Your task to perform on an android device: Open wifi settings Image 0: 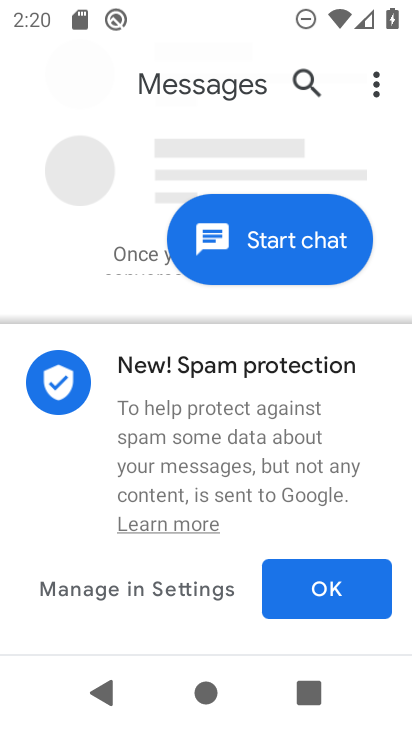
Step 0: press home button
Your task to perform on an android device: Open wifi settings Image 1: 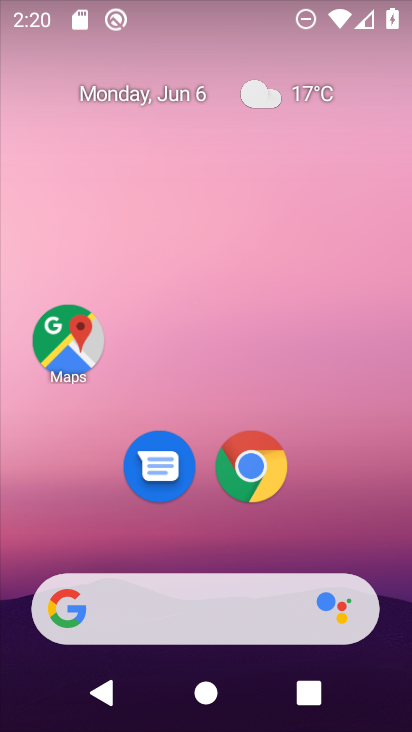
Step 1: click (255, 474)
Your task to perform on an android device: Open wifi settings Image 2: 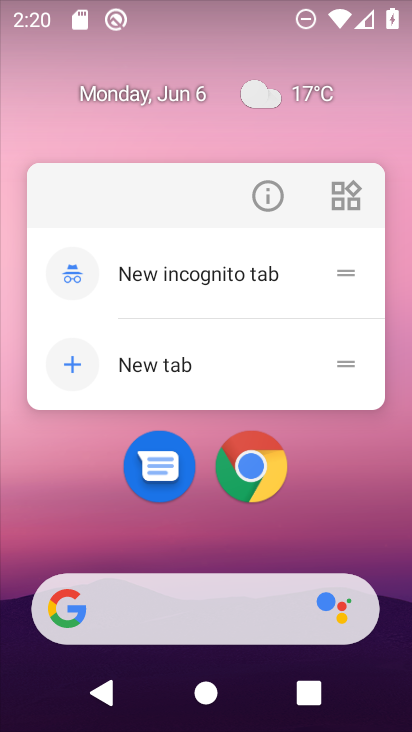
Step 2: click (252, 470)
Your task to perform on an android device: Open wifi settings Image 3: 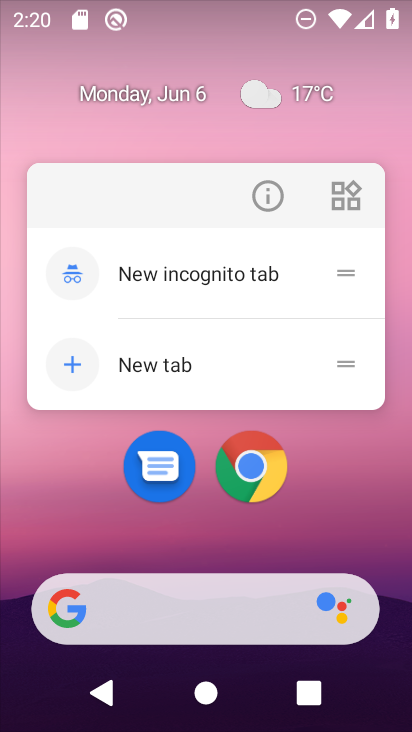
Step 3: click (252, 455)
Your task to perform on an android device: Open wifi settings Image 4: 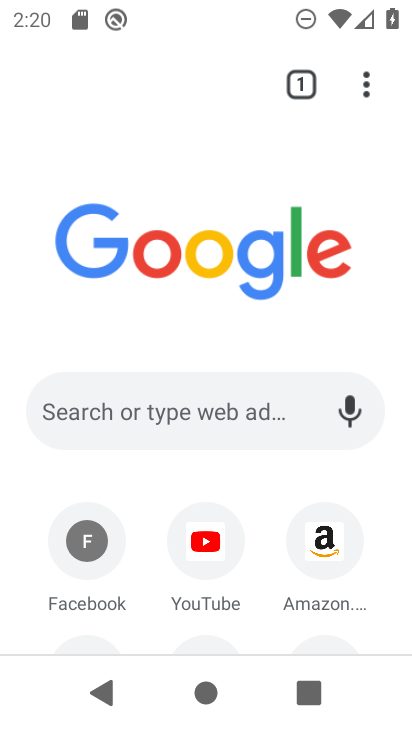
Step 4: click (360, 88)
Your task to perform on an android device: Open wifi settings Image 5: 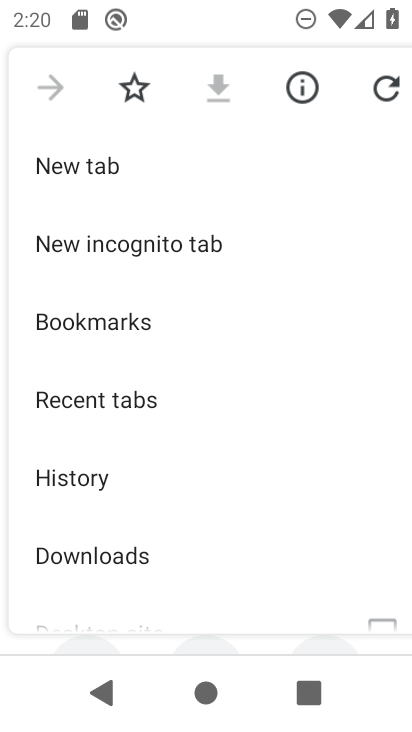
Step 5: drag from (135, 514) to (124, 312)
Your task to perform on an android device: Open wifi settings Image 6: 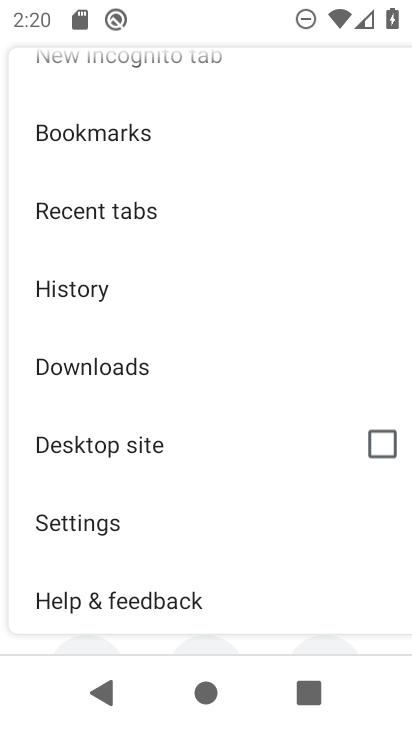
Step 6: click (99, 530)
Your task to perform on an android device: Open wifi settings Image 7: 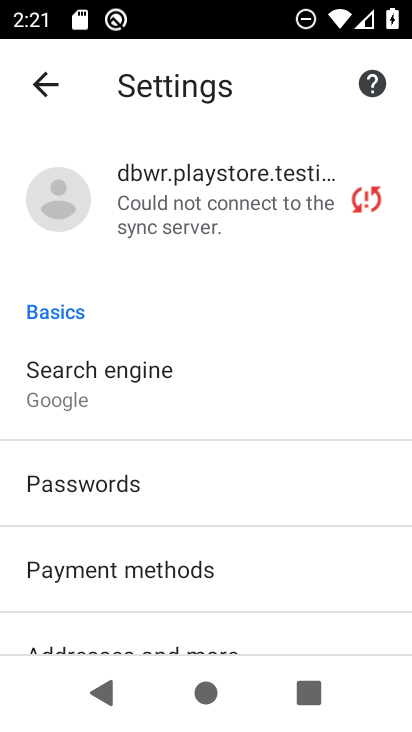
Step 7: drag from (190, 599) to (188, 233)
Your task to perform on an android device: Open wifi settings Image 8: 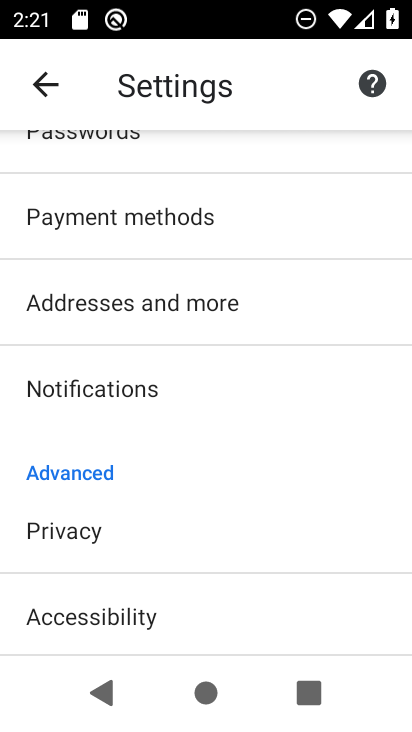
Step 8: drag from (180, 605) to (186, 318)
Your task to perform on an android device: Open wifi settings Image 9: 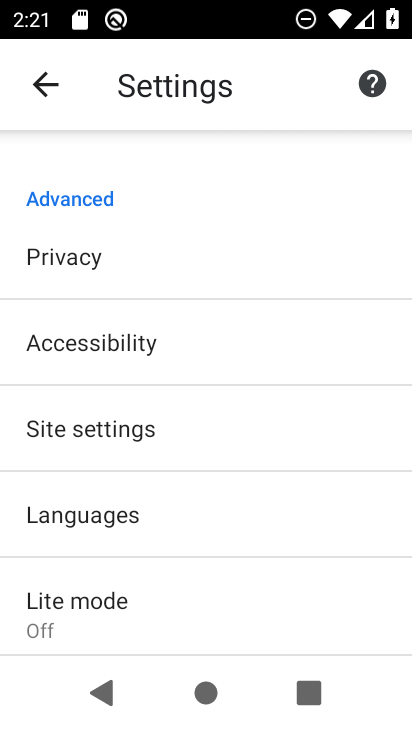
Step 9: press home button
Your task to perform on an android device: Open wifi settings Image 10: 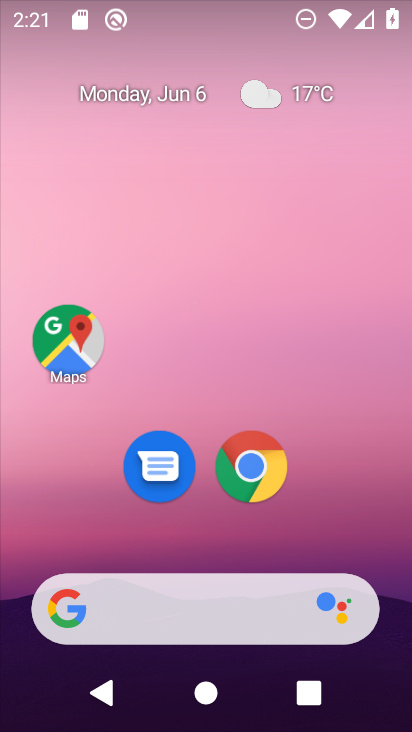
Step 10: drag from (193, 576) to (183, 125)
Your task to perform on an android device: Open wifi settings Image 11: 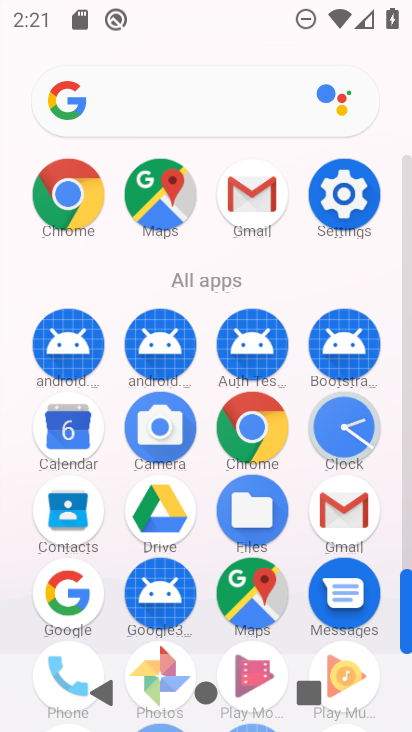
Step 11: click (345, 201)
Your task to perform on an android device: Open wifi settings Image 12: 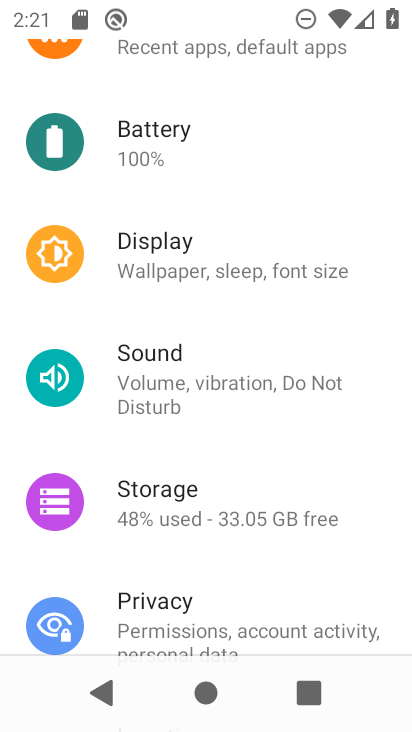
Step 12: drag from (225, 181) to (262, 563)
Your task to perform on an android device: Open wifi settings Image 13: 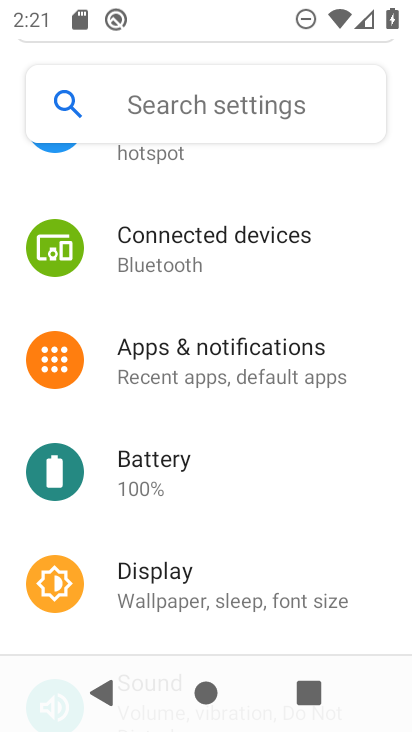
Step 13: drag from (200, 296) to (272, 675)
Your task to perform on an android device: Open wifi settings Image 14: 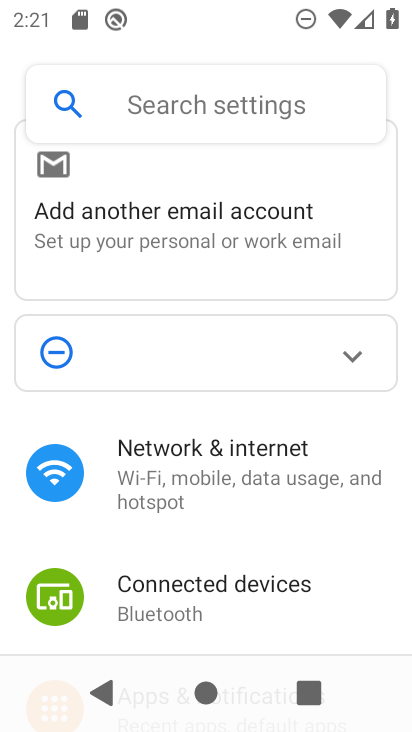
Step 14: click (229, 480)
Your task to perform on an android device: Open wifi settings Image 15: 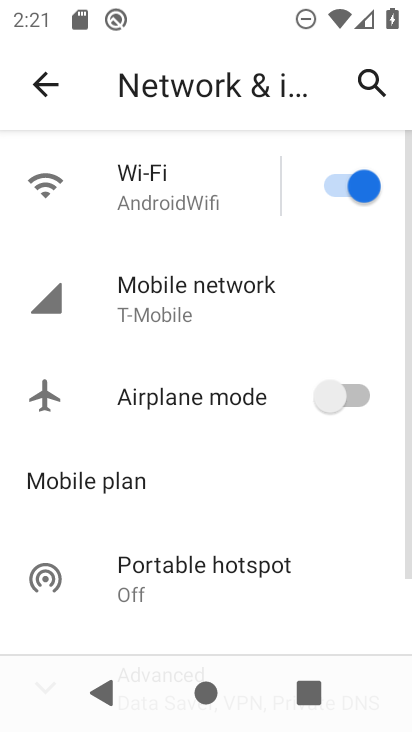
Step 15: click (200, 206)
Your task to perform on an android device: Open wifi settings Image 16: 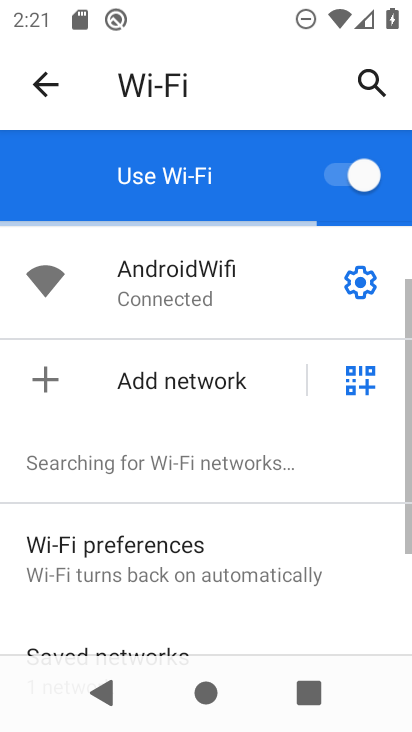
Step 16: task complete